Your task to perform on an android device: Open Amazon Image 0: 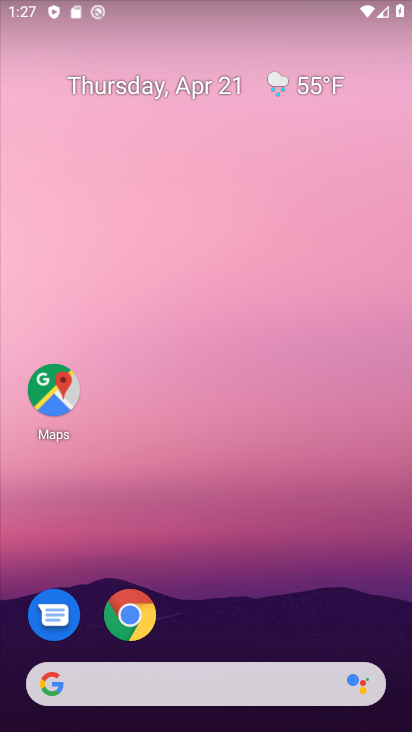
Step 0: click (126, 601)
Your task to perform on an android device: Open Amazon Image 1: 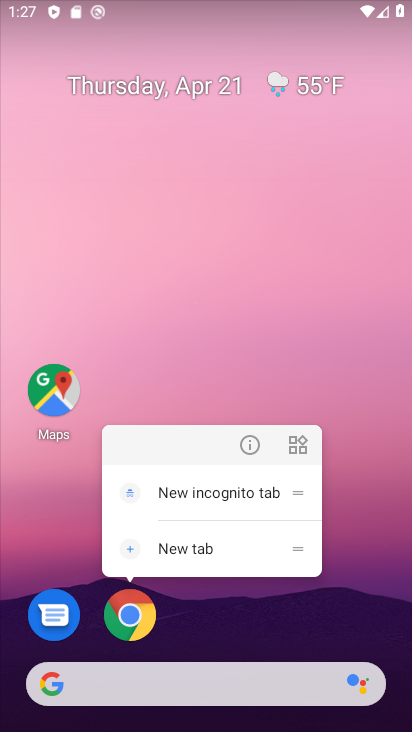
Step 1: click (128, 613)
Your task to perform on an android device: Open Amazon Image 2: 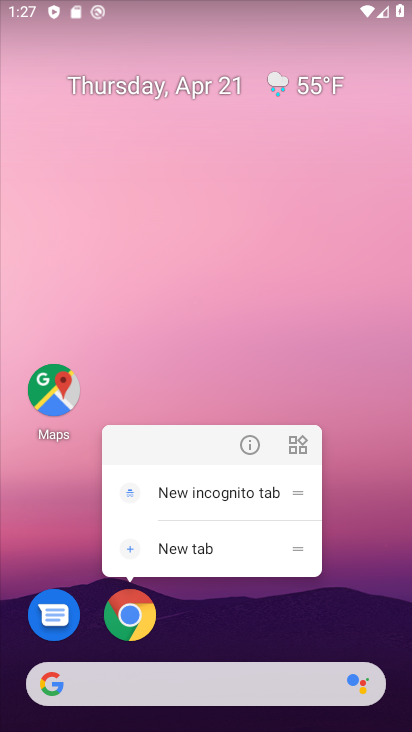
Step 2: click (131, 624)
Your task to perform on an android device: Open Amazon Image 3: 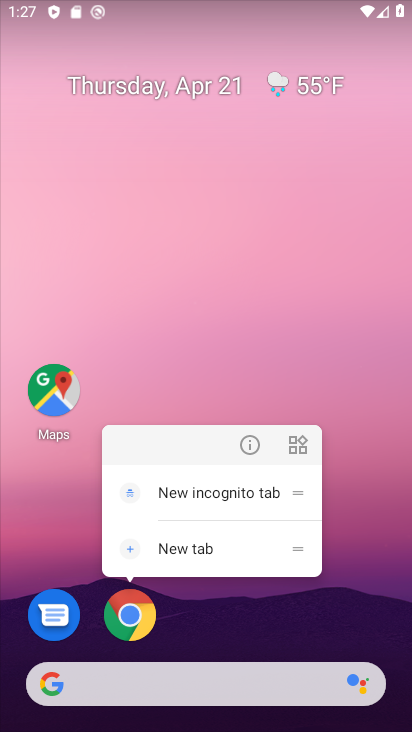
Step 3: click (131, 624)
Your task to perform on an android device: Open Amazon Image 4: 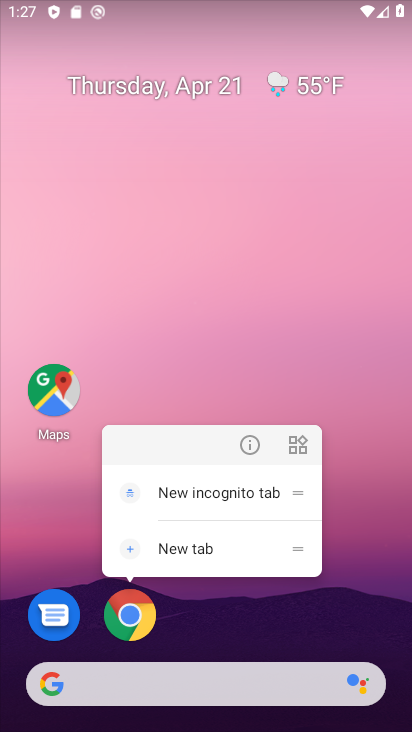
Step 4: click (131, 624)
Your task to perform on an android device: Open Amazon Image 5: 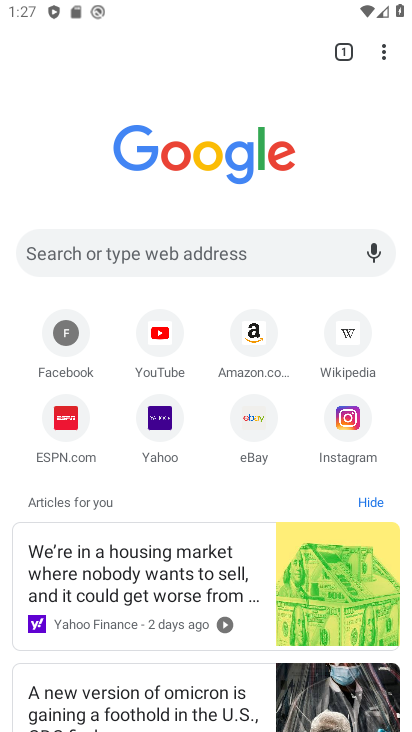
Step 5: click (248, 326)
Your task to perform on an android device: Open Amazon Image 6: 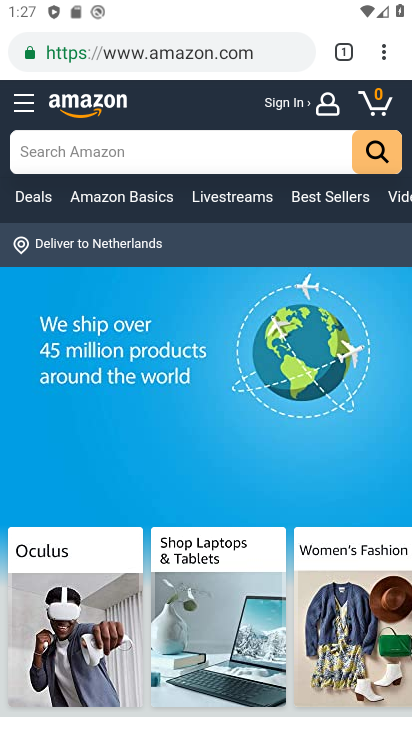
Step 6: task complete